Your task to perform on an android device: Open Google Chrome and click the shortcut for Amazon.com Image 0: 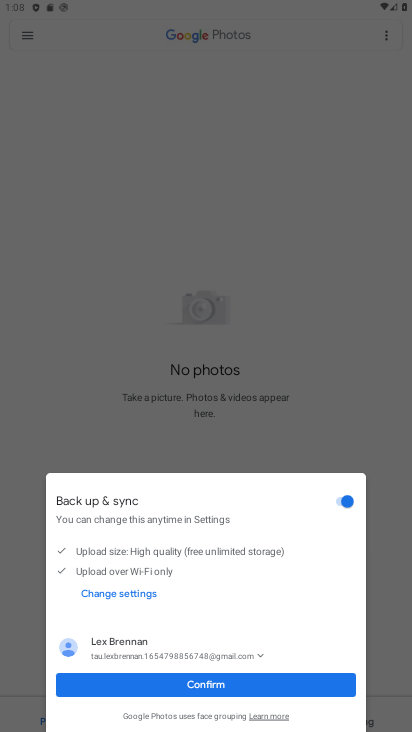
Step 0: press home button
Your task to perform on an android device: Open Google Chrome and click the shortcut for Amazon.com Image 1: 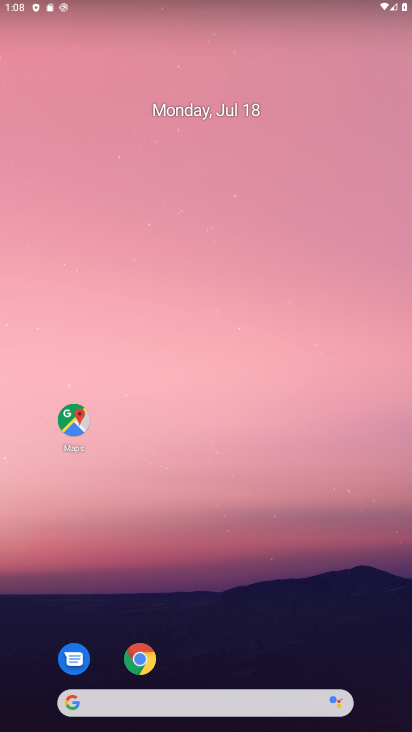
Step 1: click (142, 653)
Your task to perform on an android device: Open Google Chrome and click the shortcut for Amazon.com Image 2: 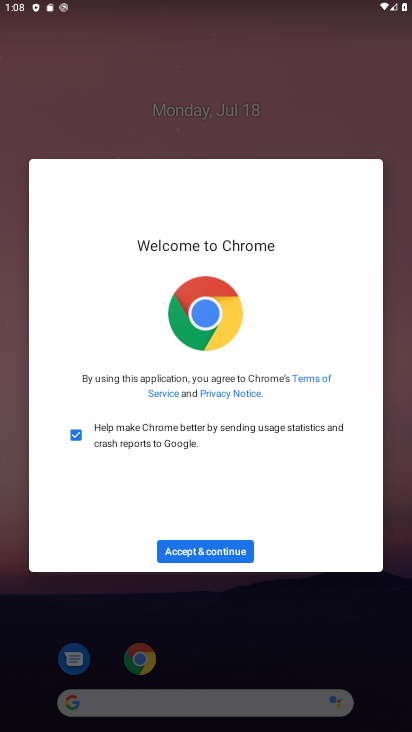
Step 2: click (208, 536)
Your task to perform on an android device: Open Google Chrome and click the shortcut for Amazon.com Image 3: 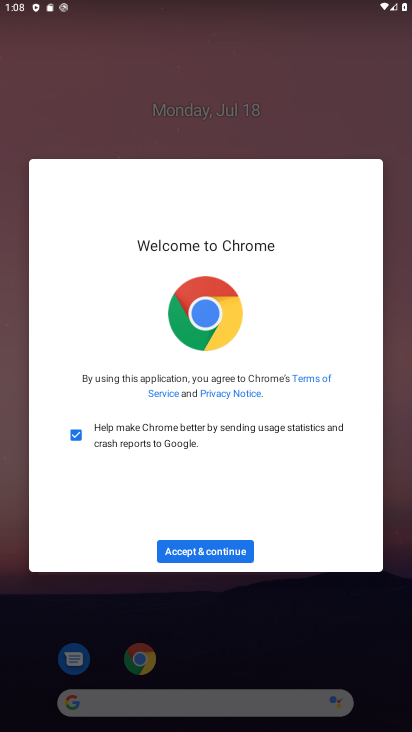
Step 3: click (208, 553)
Your task to perform on an android device: Open Google Chrome and click the shortcut for Amazon.com Image 4: 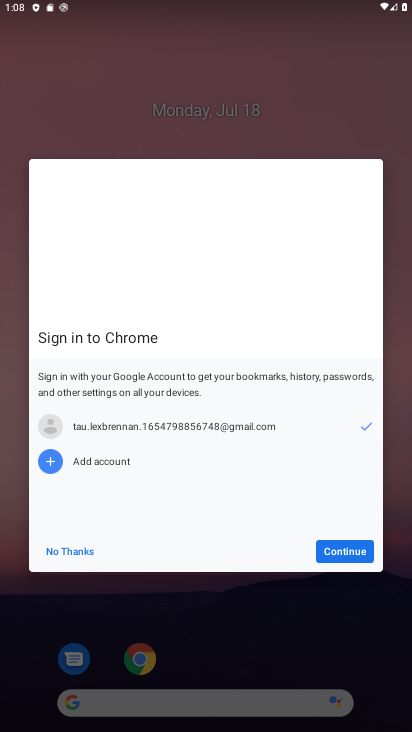
Step 4: click (340, 543)
Your task to perform on an android device: Open Google Chrome and click the shortcut for Amazon.com Image 5: 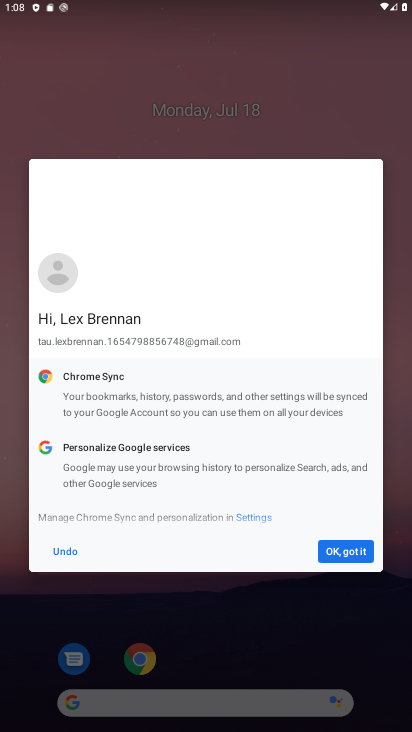
Step 5: click (340, 543)
Your task to perform on an android device: Open Google Chrome and click the shortcut for Amazon.com Image 6: 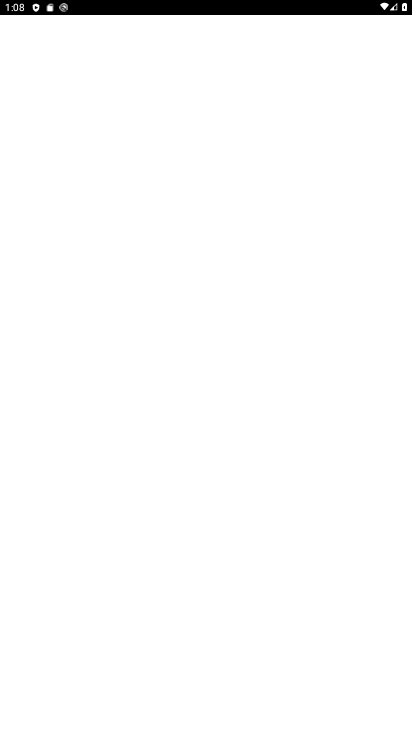
Step 6: click (340, 543)
Your task to perform on an android device: Open Google Chrome and click the shortcut for Amazon.com Image 7: 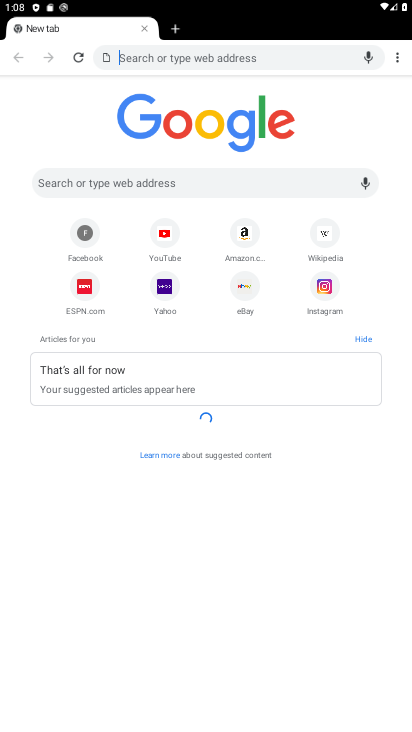
Step 7: click (243, 232)
Your task to perform on an android device: Open Google Chrome and click the shortcut for Amazon.com Image 8: 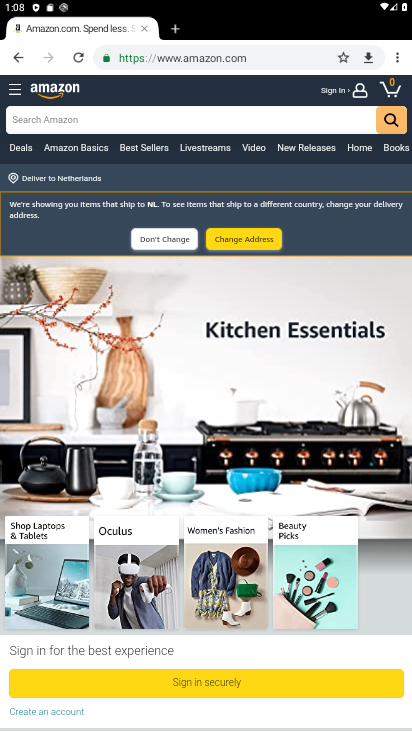
Step 8: task complete